Your task to perform on an android device: clear all cookies in the chrome app Image 0: 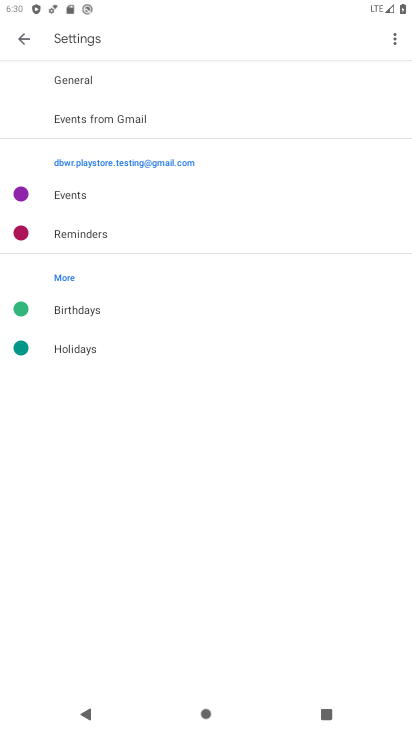
Step 0: press home button
Your task to perform on an android device: clear all cookies in the chrome app Image 1: 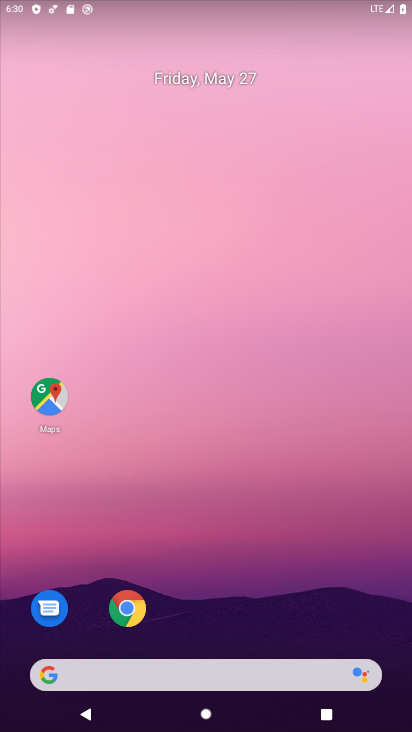
Step 1: click (126, 605)
Your task to perform on an android device: clear all cookies in the chrome app Image 2: 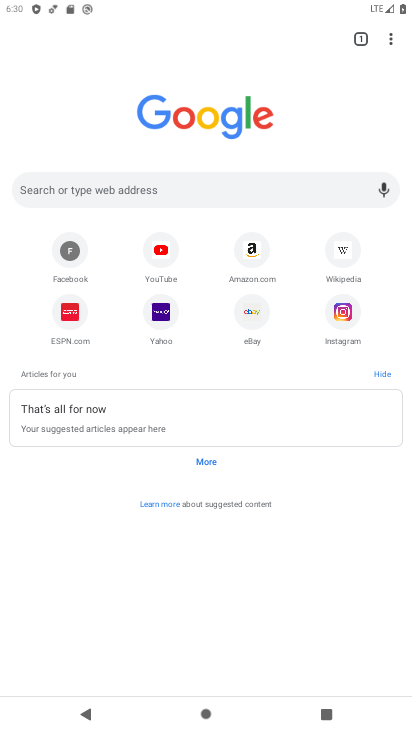
Step 2: click (391, 38)
Your task to perform on an android device: clear all cookies in the chrome app Image 3: 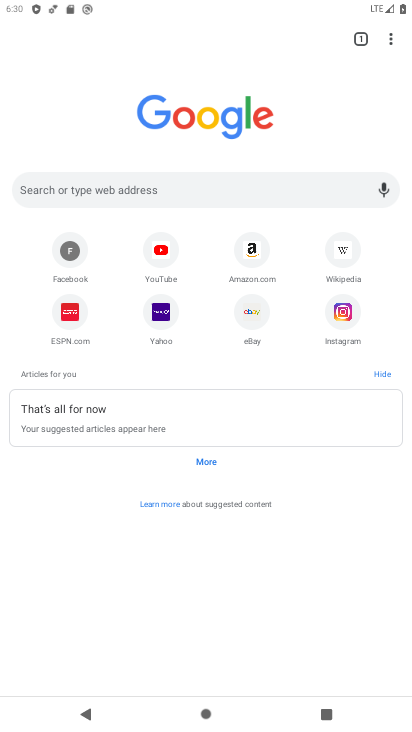
Step 3: click (391, 38)
Your task to perform on an android device: clear all cookies in the chrome app Image 4: 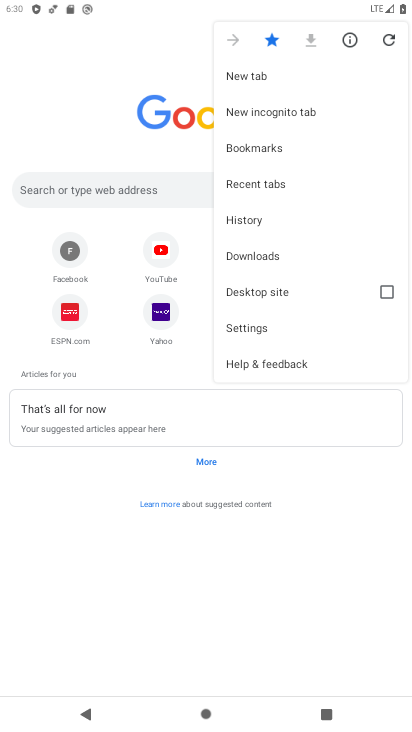
Step 4: click (260, 216)
Your task to perform on an android device: clear all cookies in the chrome app Image 5: 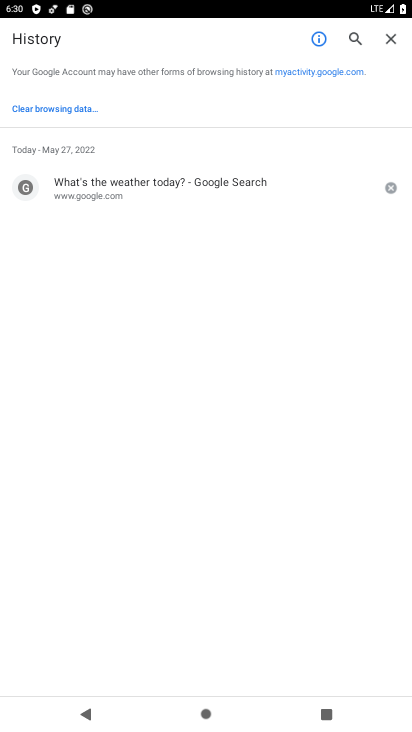
Step 5: click (60, 107)
Your task to perform on an android device: clear all cookies in the chrome app Image 6: 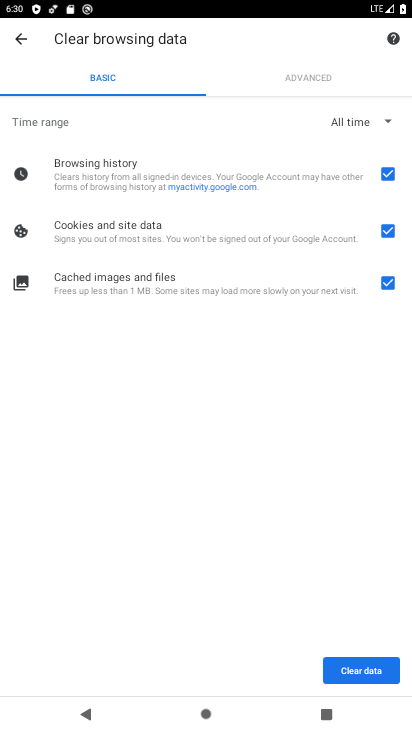
Step 6: click (385, 172)
Your task to perform on an android device: clear all cookies in the chrome app Image 7: 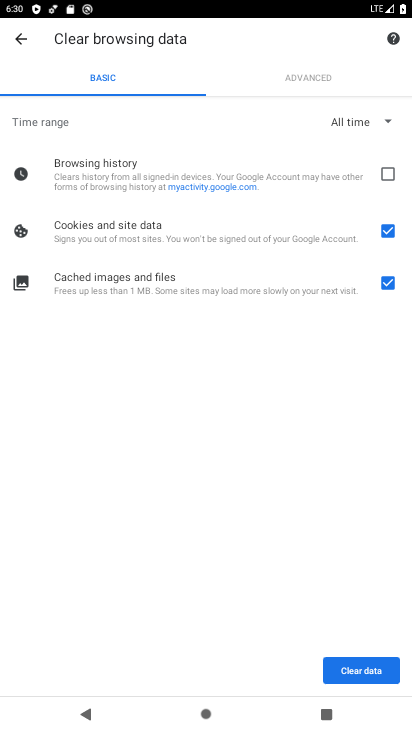
Step 7: click (389, 280)
Your task to perform on an android device: clear all cookies in the chrome app Image 8: 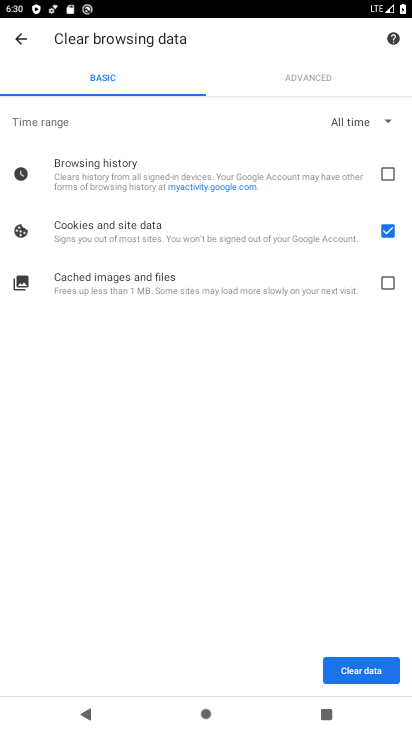
Step 8: click (367, 666)
Your task to perform on an android device: clear all cookies in the chrome app Image 9: 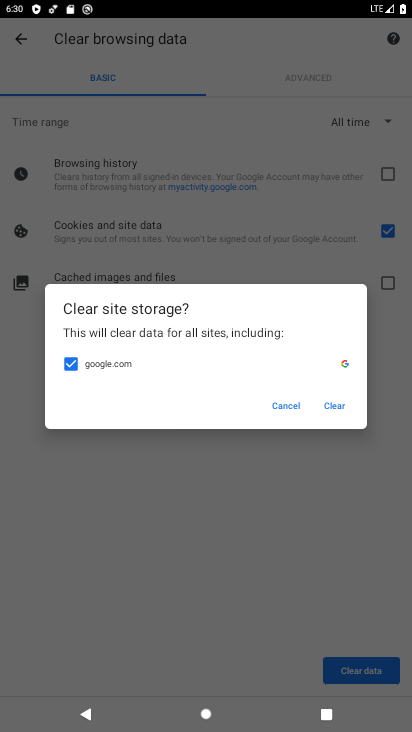
Step 9: click (334, 400)
Your task to perform on an android device: clear all cookies in the chrome app Image 10: 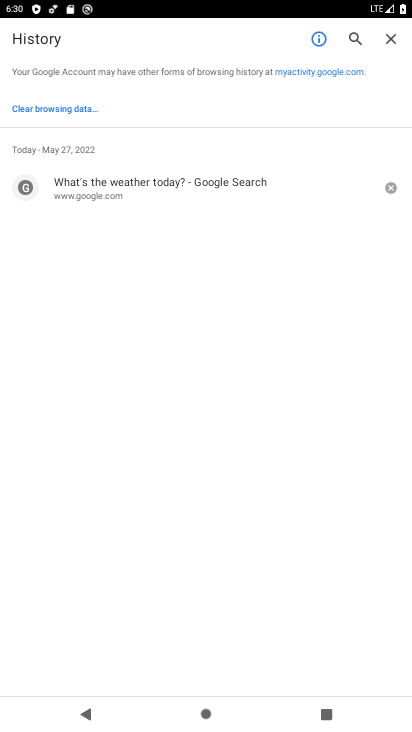
Step 10: task complete